Your task to perform on an android device: turn notification dots off Image 0: 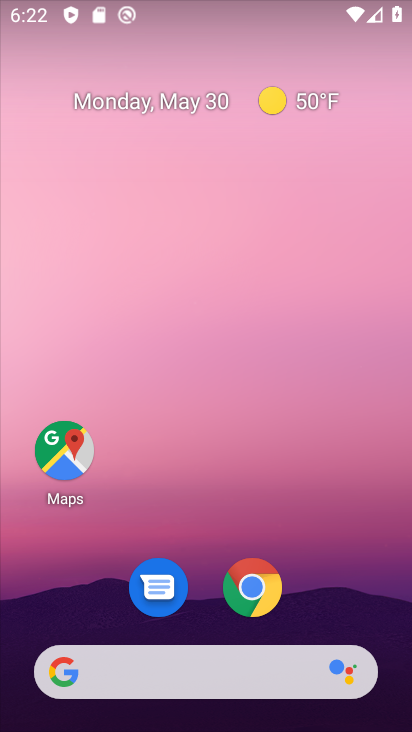
Step 0: drag from (324, 561) to (248, 35)
Your task to perform on an android device: turn notification dots off Image 1: 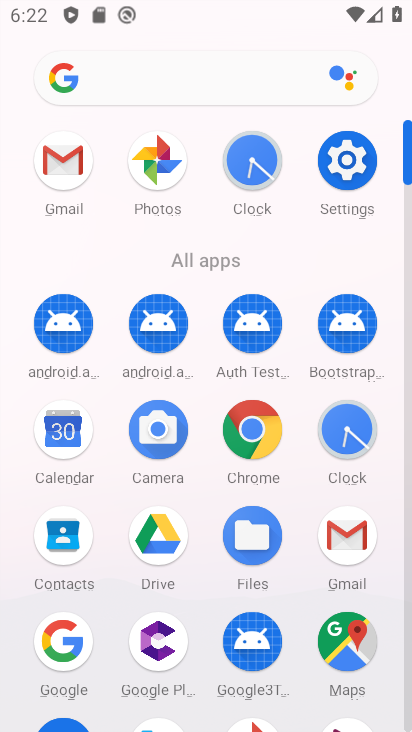
Step 1: drag from (16, 526) to (13, 251)
Your task to perform on an android device: turn notification dots off Image 2: 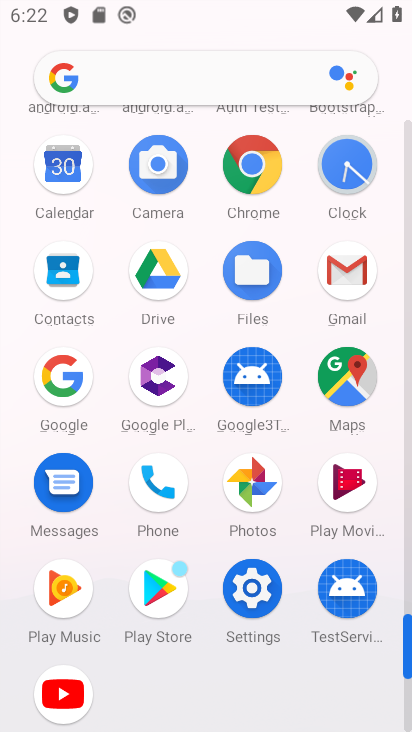
Step 2: click (248, 581)
Your task to perform on an android device: turn notification dots off Image 3: 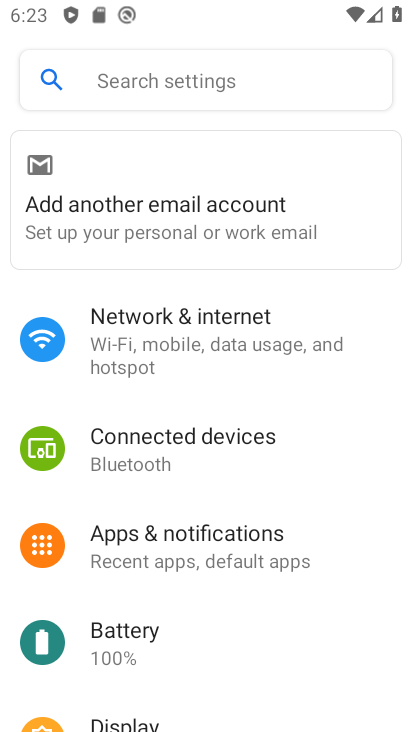
Step 3: drag from (320, 569) to (323, 171)
Your task to perform on an android device: turn notification dots off Image 4: 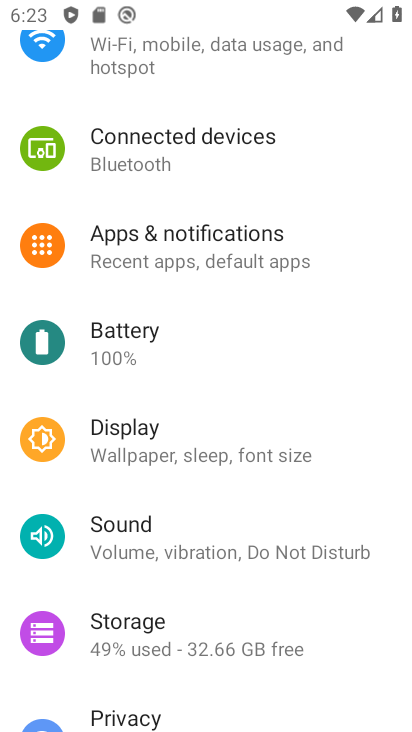
Step 4: click (269, 247)
Your task to perform on an android device: turn notification dots off Image 5: 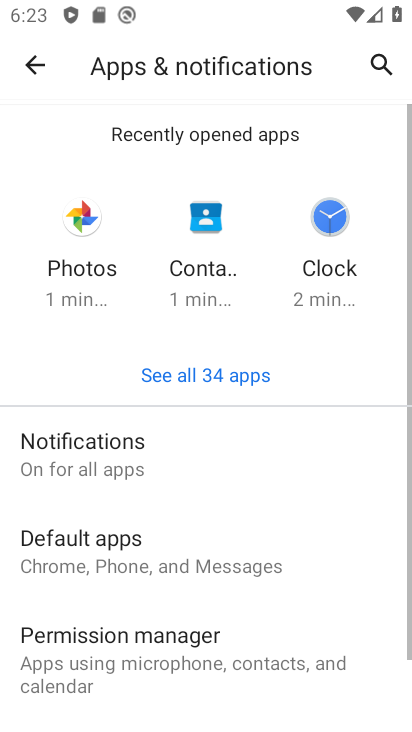
Step 5: click (152, 455)
Your task to perform on an android device: turn notification dots off Image 6: 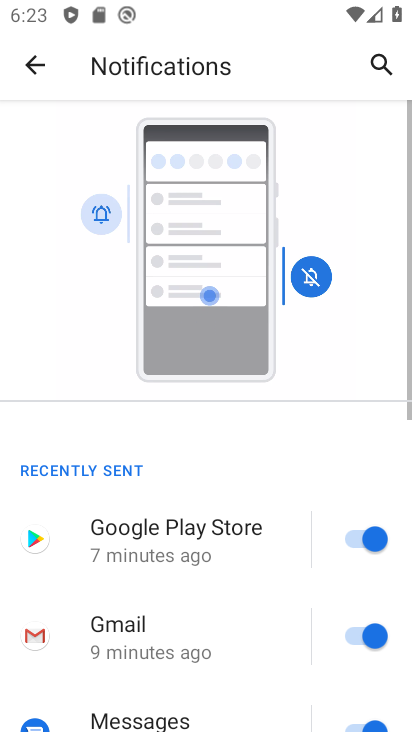
Step 6: drag from (192, 642) to (217, 194)
Your task to perform on an android device: turn notification dots off Image 7: 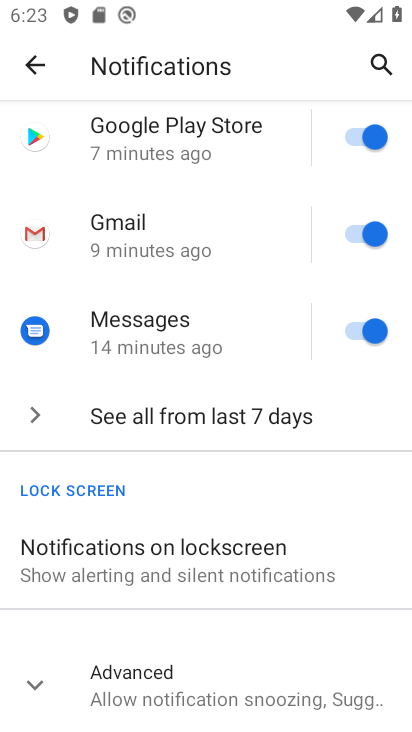
Step 7: drag from (238, 679) to (255, 160)
Your task to perform on an android device: turn notification dots off Image 8: 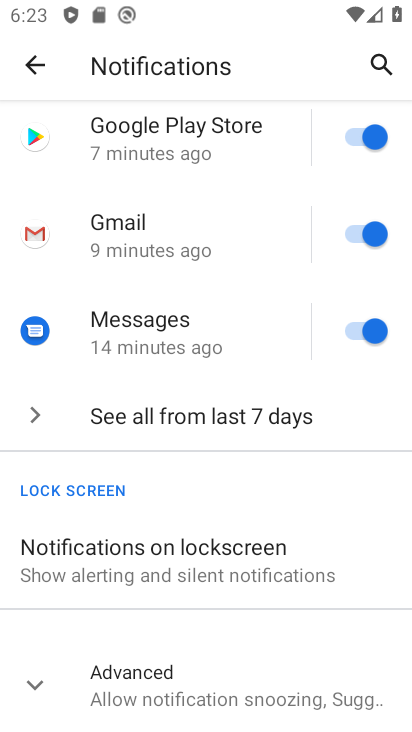
Step 8: click (72, 671)
Your task to perform on an android device: turn notification dots off Image 9: 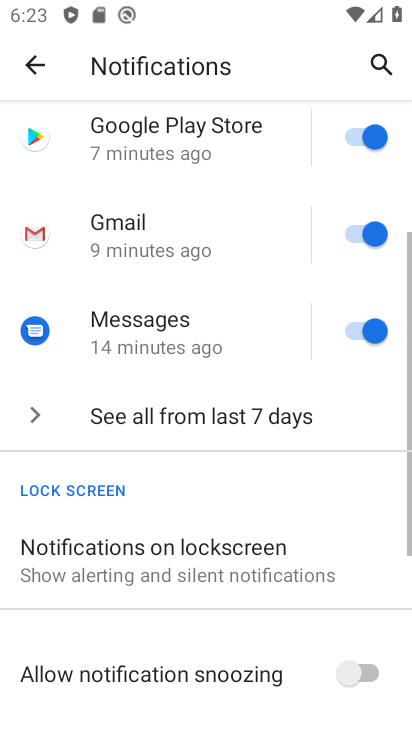
Step 9: task complete